Your task to perform on an android device: uninstall "Microsoft Outlook" Image 0: 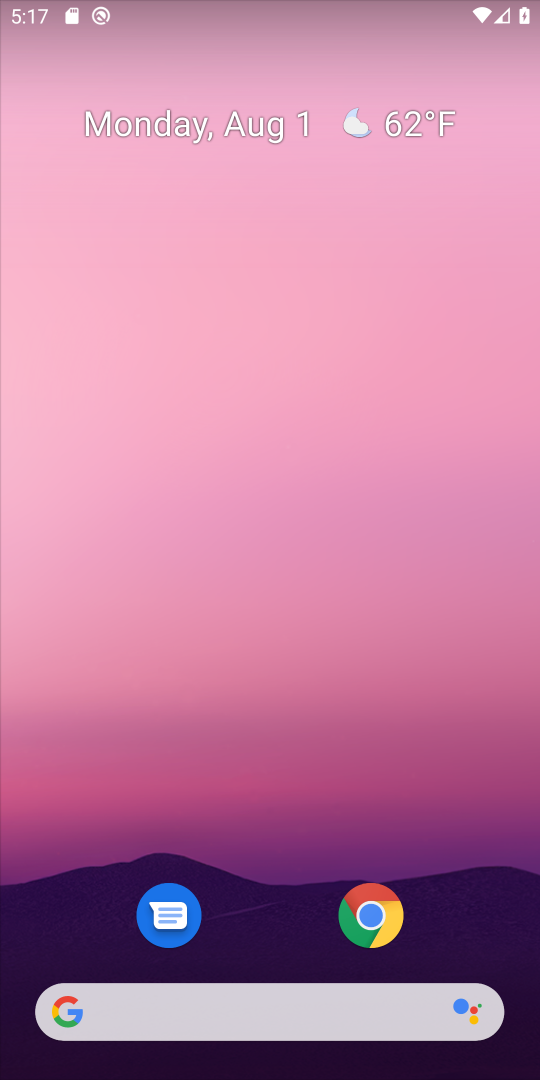
Step 0: drag from (83, 923) to (96, 120)
Your task to perform on an android device: uninstall "Microsoft Outlook" Image 1: 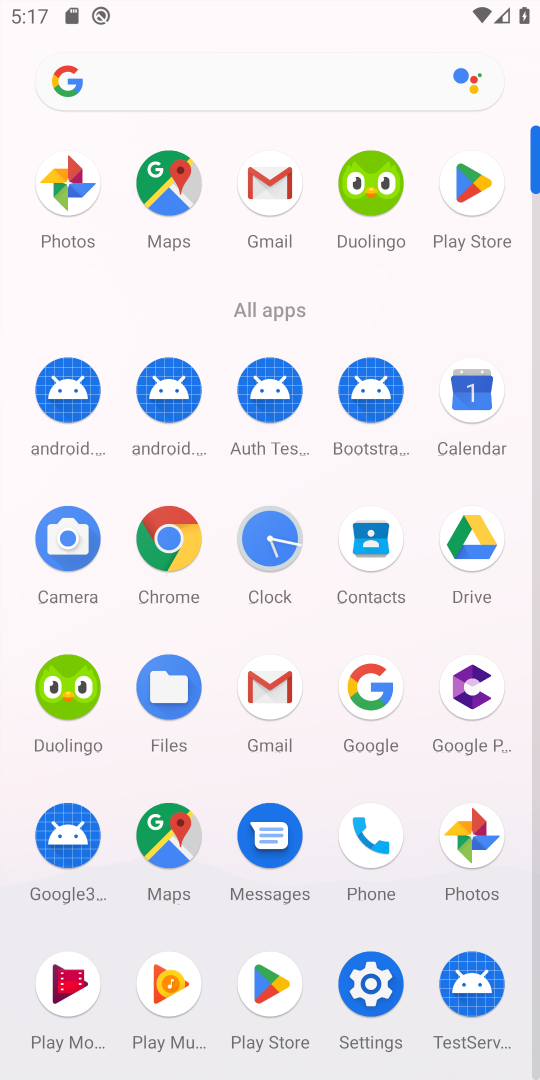
Step 1: click (467, 182)
Your task to perform on an android device: uninstall "Microsoft Outlook" Image 2: 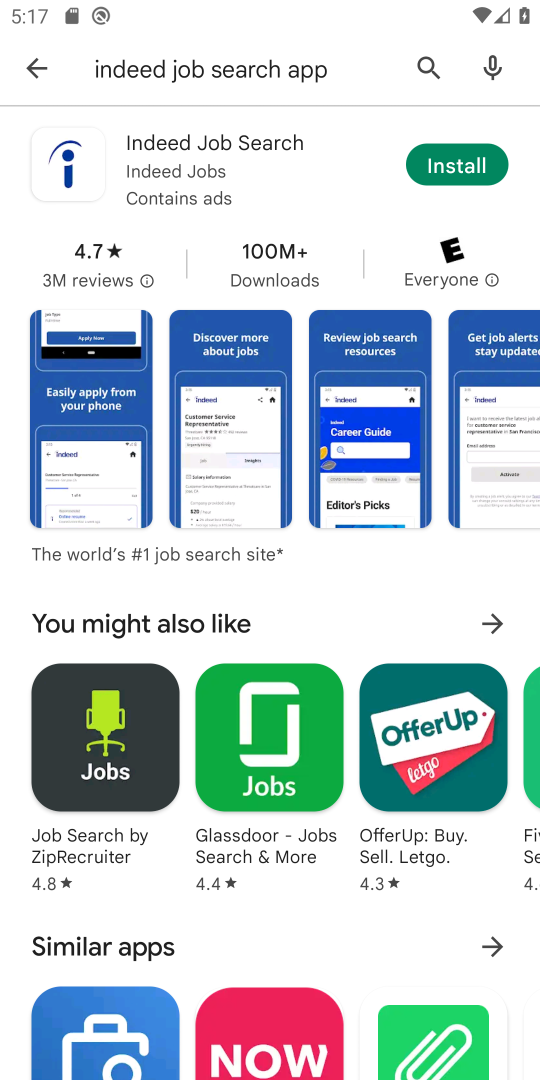
Step 2: click (410, 53)
Your task to perform on an android device: uninstall "Microsoft Outlook" Image 3: 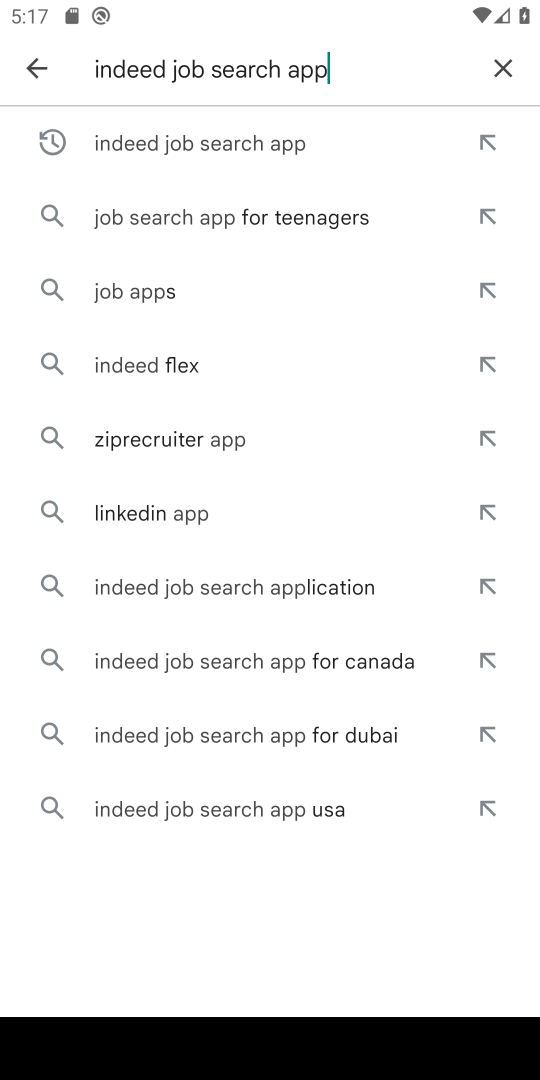
Step 3: click (503, 56)
Your task to perform on an android device: uninstall "Microsoft Outlook" Image 4: 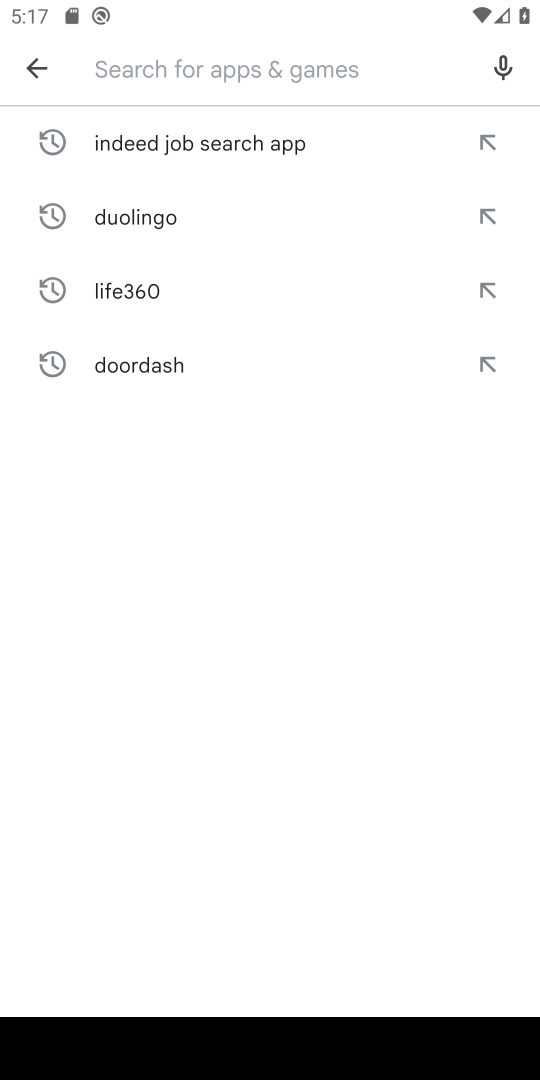
Step 4: click (154, 100)
Your task to perform on an android device: uninstall "Microsoft Outlook" Image 5: 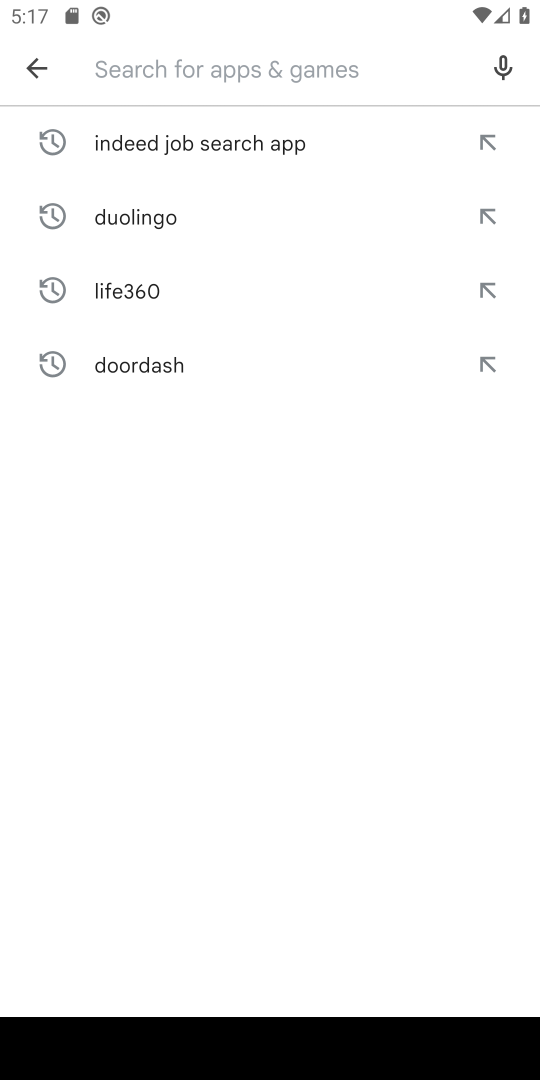
Step 5: type "microsoft outlook"
Your task to perform on an android device: uninstall "Microsoft Outlook" Image 6: 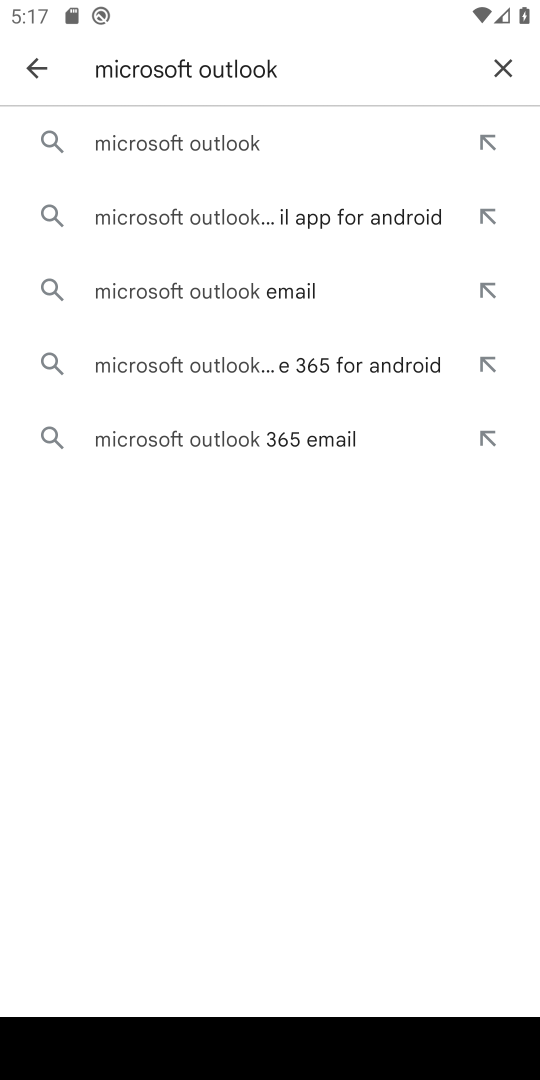
Step 6: click (235, 122)
Your task to perform on an android device: uninstall "Microsoft Outlook" Image 7: 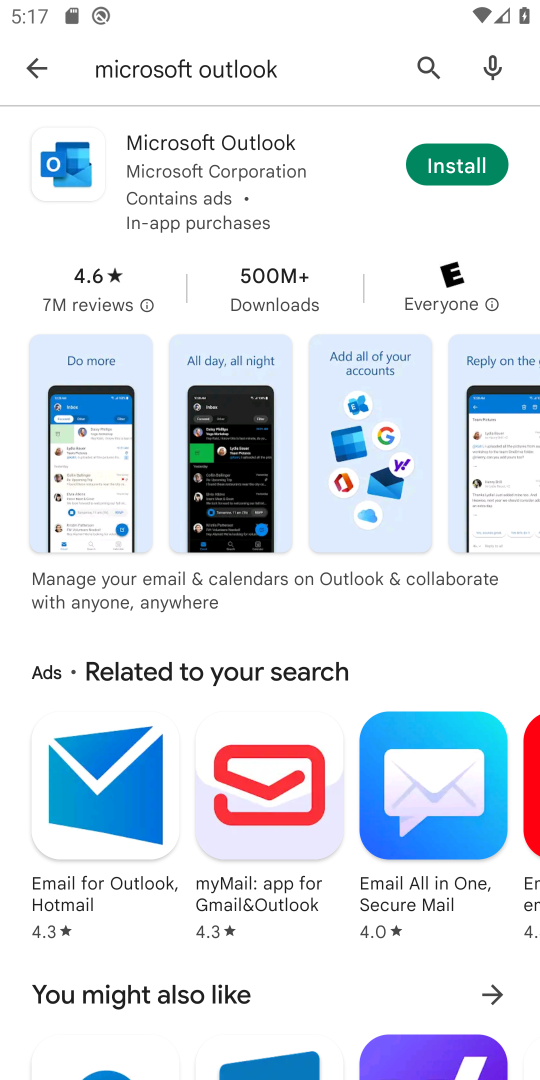
Step 7: task complete